Your task to perform on an android device: open a new tab in the chrome app Image 0: 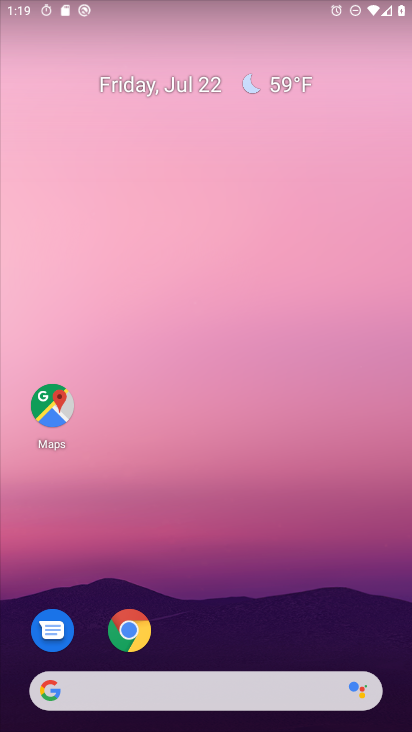
Step 0: press home button
Your task to perform on an android device: open a new tab in the chrome app Image 1: 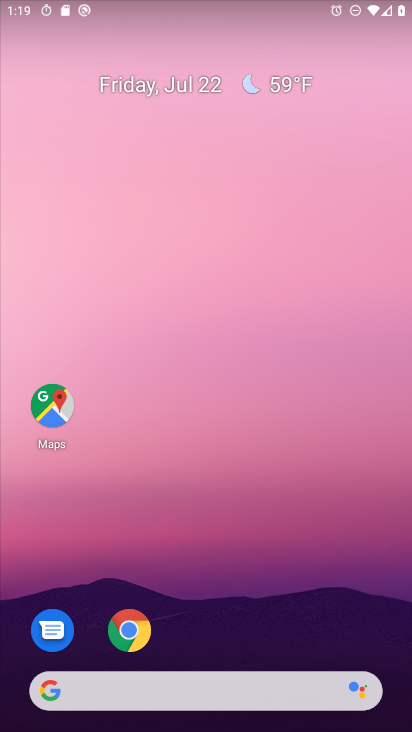
Step 1: drag from (238, 629) to (231, 57)
Your task to perform on an android device: open a new tab in the chrome app Image 2: 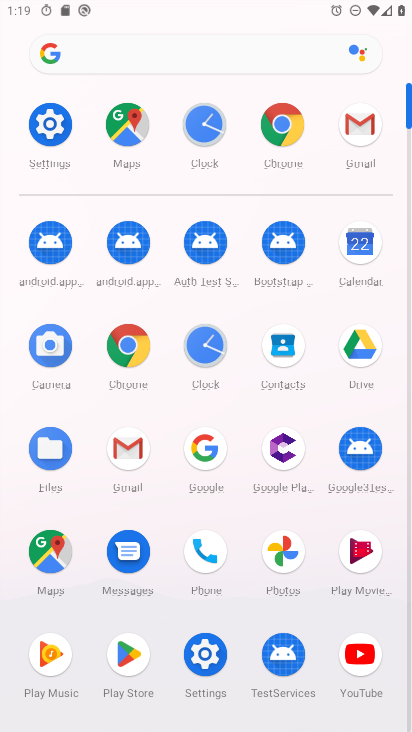
Step 2: click (280, 128)
Your task to perform on an android device: open a new tab in the chrome app Image 3: 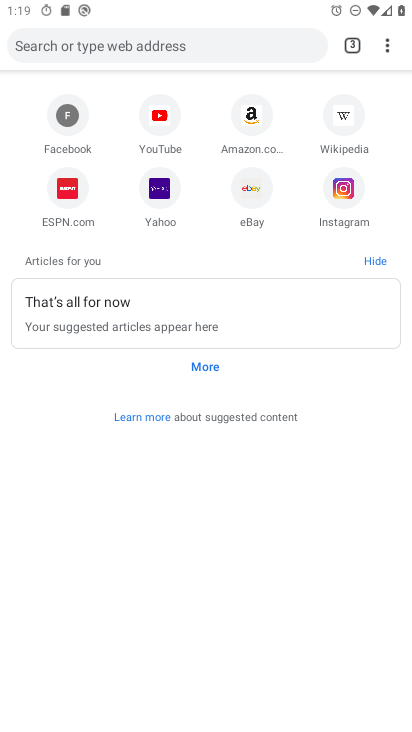
Step 3: click (349, 48)
Your task to perform on an android device: open a new tab in the chrome app Image 4: 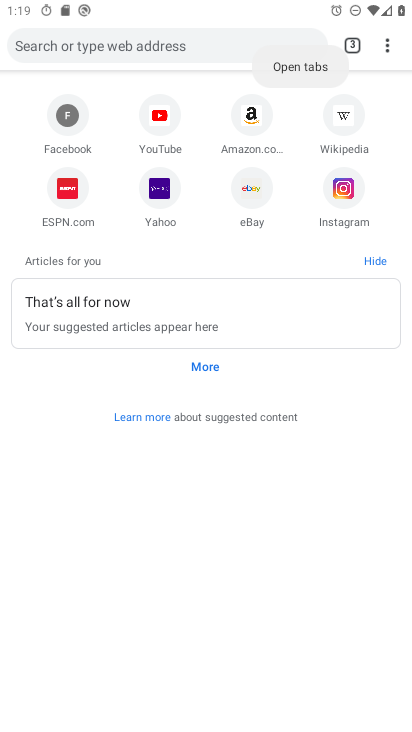
Step 4: click (349, 48)
Your task to perform on an android device: open a new tab in the chrome app Image 5: 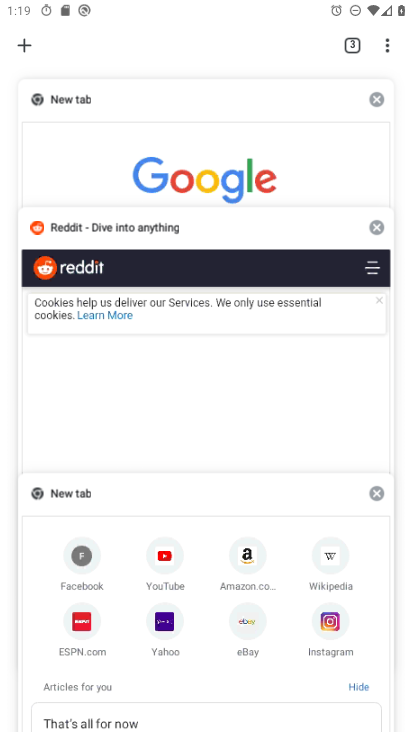
Step 5: click (25, 41)
Your task to perform on an android device: open a new tab in the chrome app Image 6: 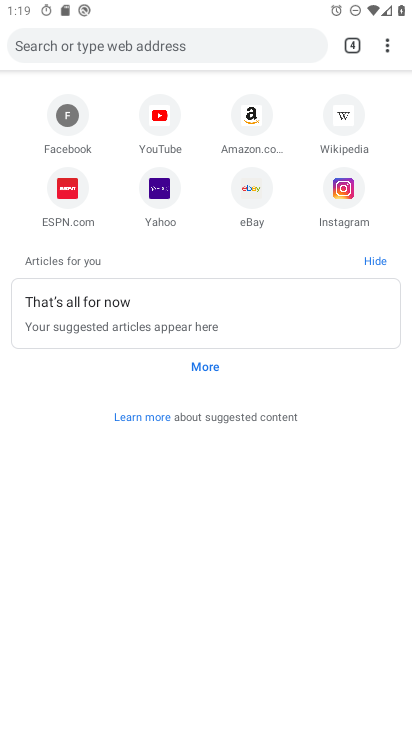
Step 6: task complete